Your task to perform on an android device: manage bookmarks in the chrome app Image 0: 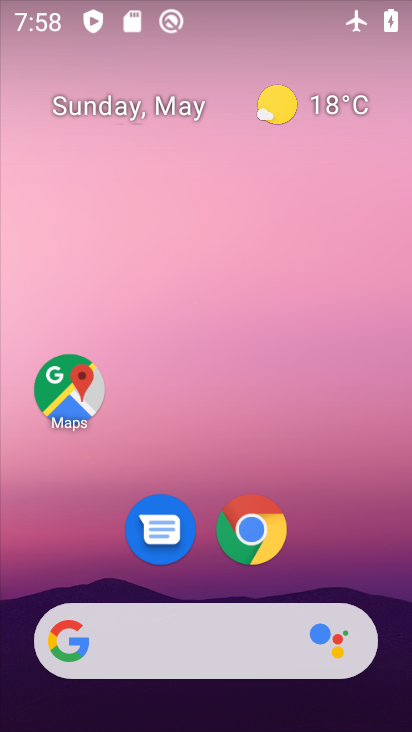
Step 0: click (256, 532)
Your task to perform on an android device: manage bookmarks in the chrome app Image 1: 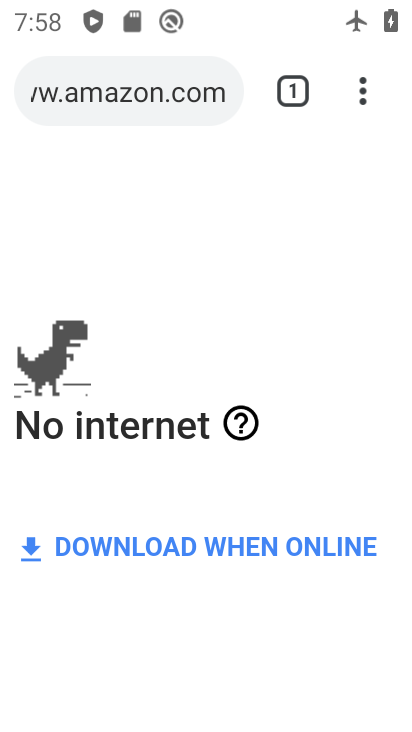
Step 1: click (362, 93)
Your task to perform on an android device: manage bookmarks in the chrome app Image 2: 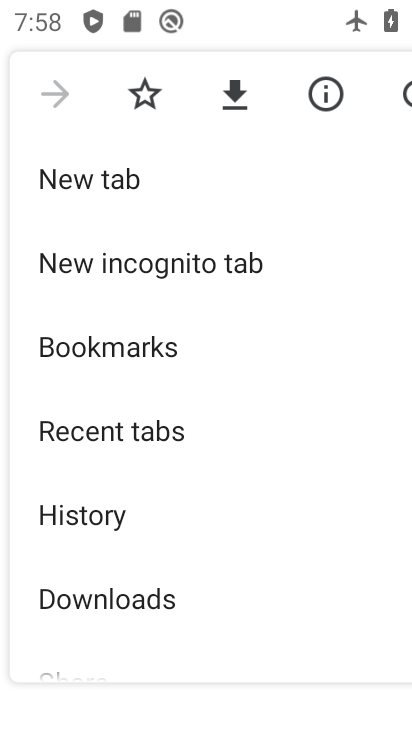
Step 2: click (137, 351)
Your task to perform on an android device: manage bookmarks in the chrome app Image 3: 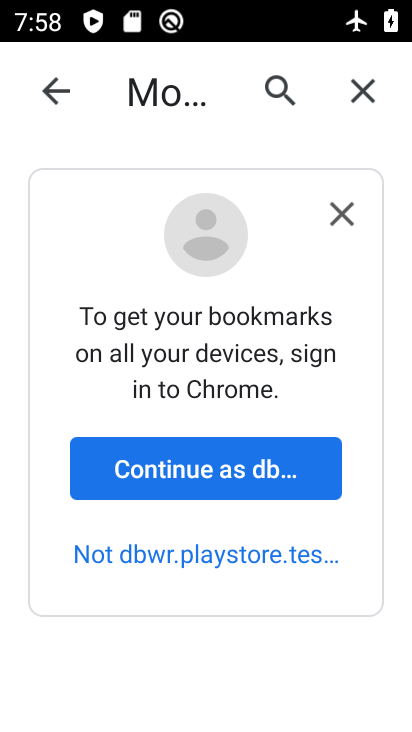
Step 3: click (155, 486)
Your task to perform on an android device: manage bookmarks in the chrome app Image 4: 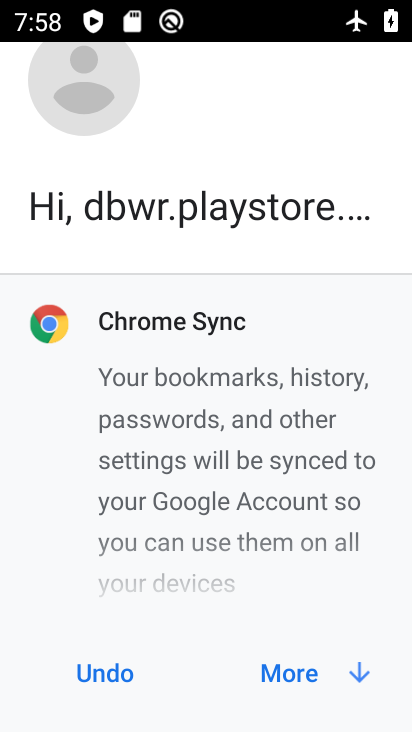
Step 4: click (265, 669)
Your task to perform on an android device: manage bookmarks in the chrome app Image 5: 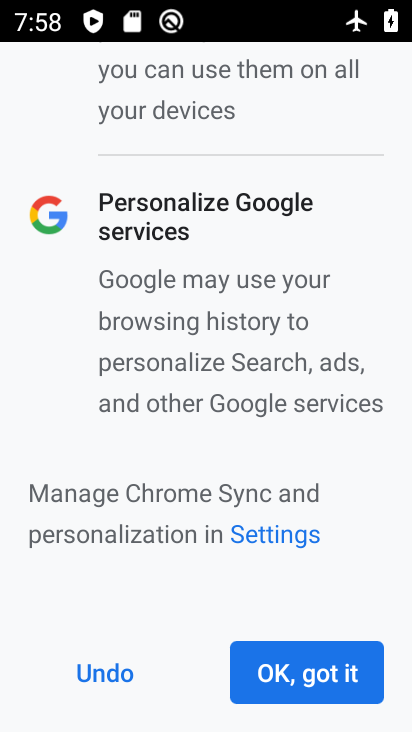
Step 5: click (265, 669)
Your task to perform on an android device: manage bookmarks in the chrome app Image 6: 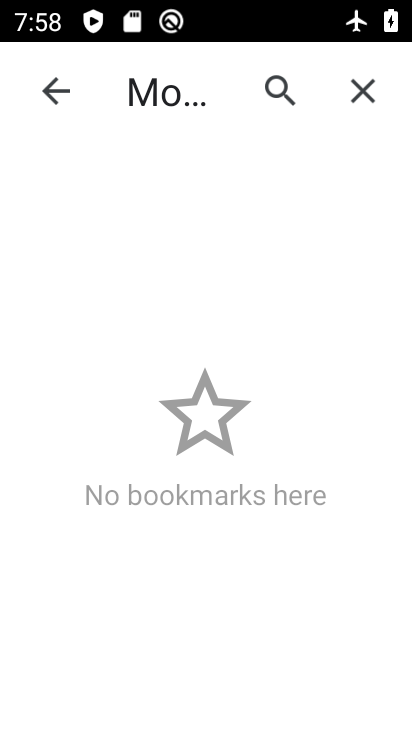
Step 6: task complete